Your task to perform on an android device: Open wifi settings Image 0: 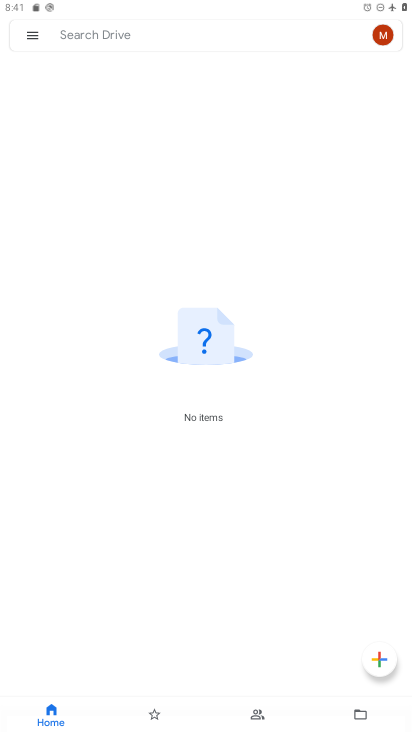
Step 0: press home button
Your task to perform on an android device: Open wifi settings Image 1: 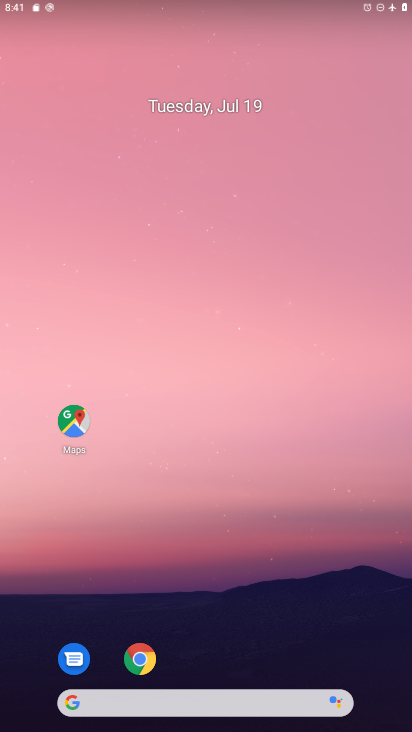
Step 1: drag from (170, 8) to (185, 722)
Your task to perform on an android device: Open wifi settings Image 2: 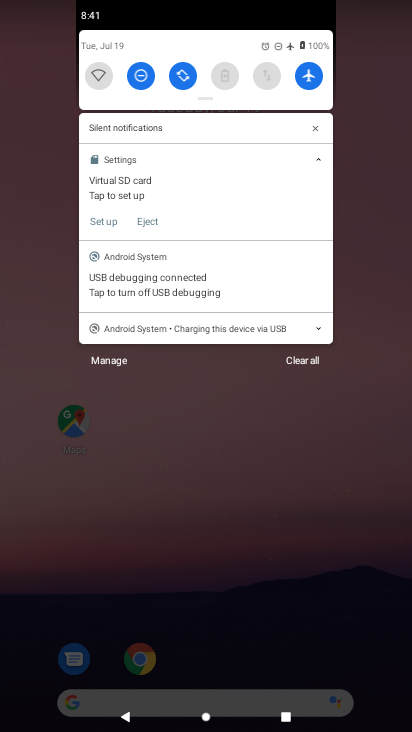
Step 2: click (204, 449)
Your task to perform on an android device: Open wifi settings Image 3: 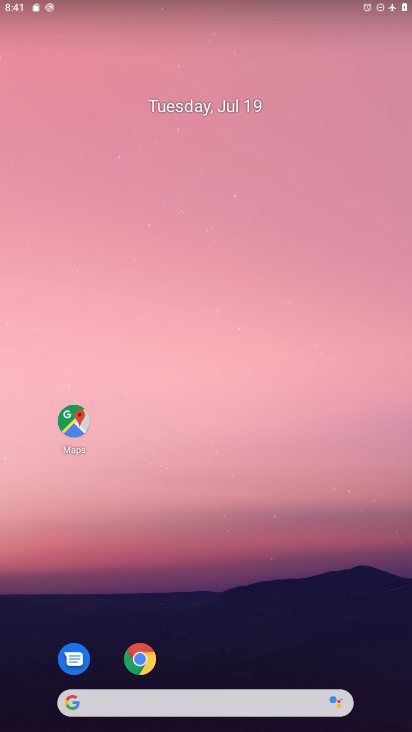
Step 3: drag from (210, 696) to (209, 275)
Your task to perform on an android device: Open wifi settings Image 4: 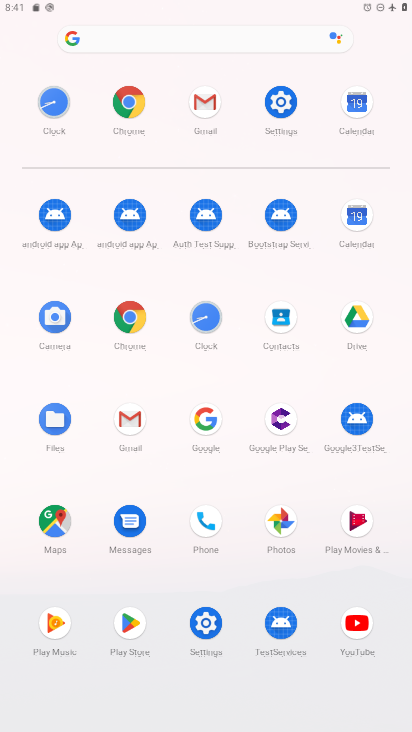
Step 4: click (276, 100)
Your task to perform on an android device: Open wifi settings Image 5: 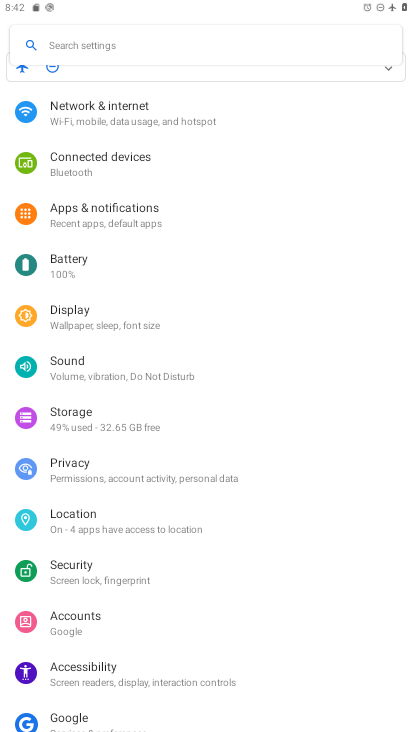
Step 5: drag from (147, 108) to (160, 394)
Your task to perform on an android device: Open wifi settings Image 6: 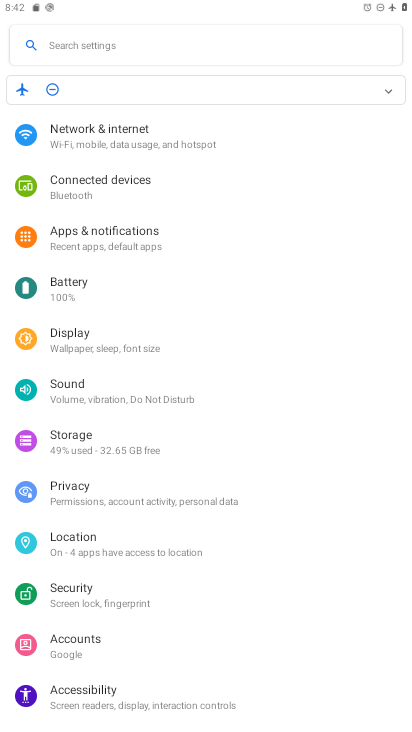
Step 6: click (129, 124)
Your task to perform on an android device: Open wifi settings Image 7: 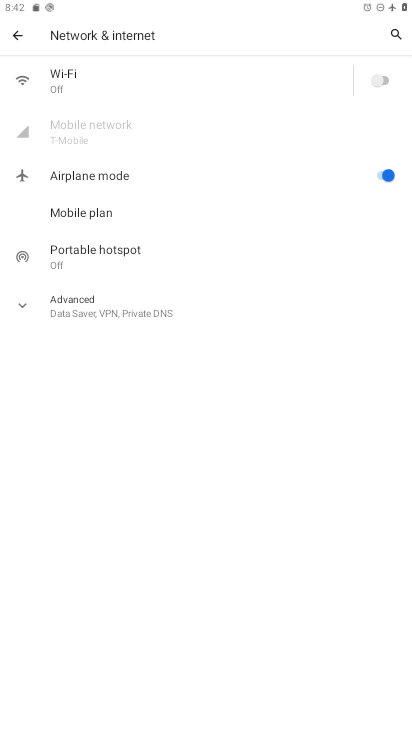
Step 7: task complete